Your task to perform on an android device: Search for Mexican restaurants on Maps Image 0: 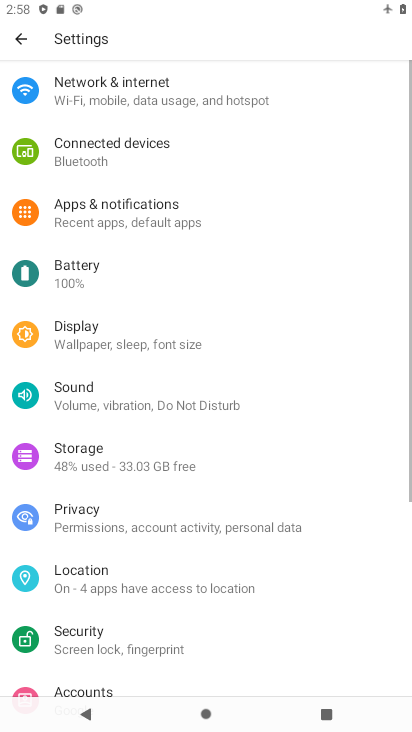
Step 0: press home button
Your task to perform on an android device: Search for Mexican restaurants on Maps Image 1: 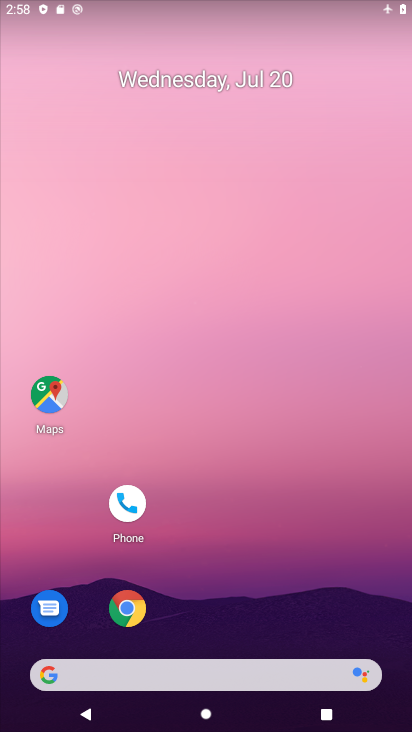
Step 1: click (58, 398)
Your task to perform on an android device: Search for Mexican restaurants on Maps Image 2: 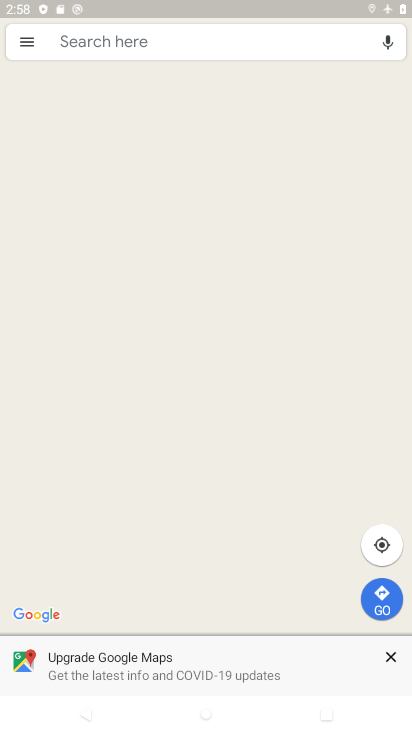
Step 2: click (227, 35)
Your task to perform on an android device: Search for Mexican restaurants on Maps Image 3: 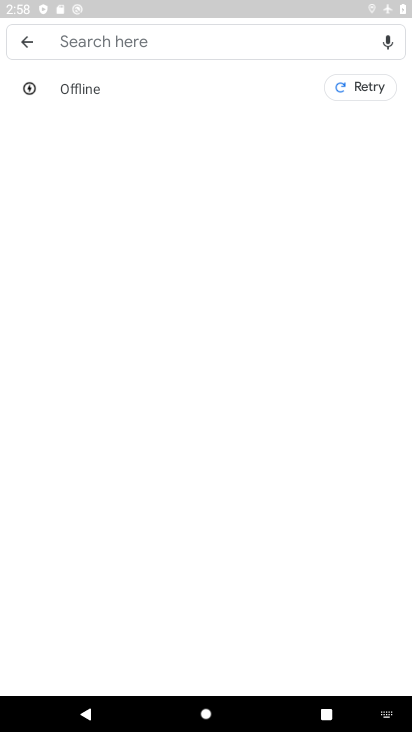
Step 3: type "Mexican restaurants"
Your task to perform on an android device: Search for Mexican restaurants on Maps Image 4: 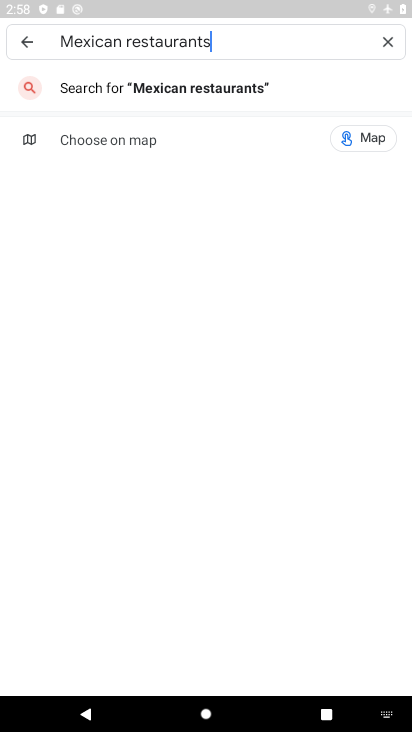
Step 4: click (187, 88)
Your task to perform on an android device: Search for Mexican restaurants on Maps Image 5: 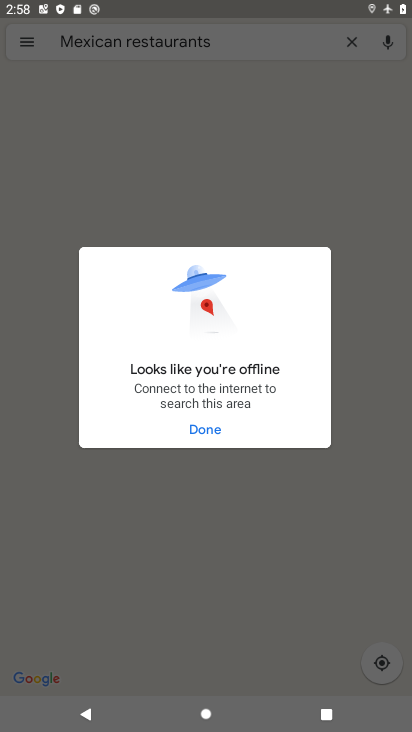
Step 5: task complete